Your task to perform on an android device: Open settings on Google Maps Image 0: 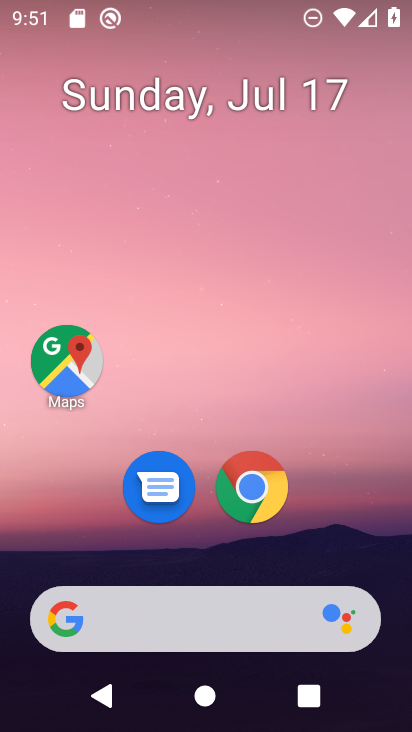
Step 0: press home button
Your task to perform on an android device: Open settings on Google Maps Image 1: 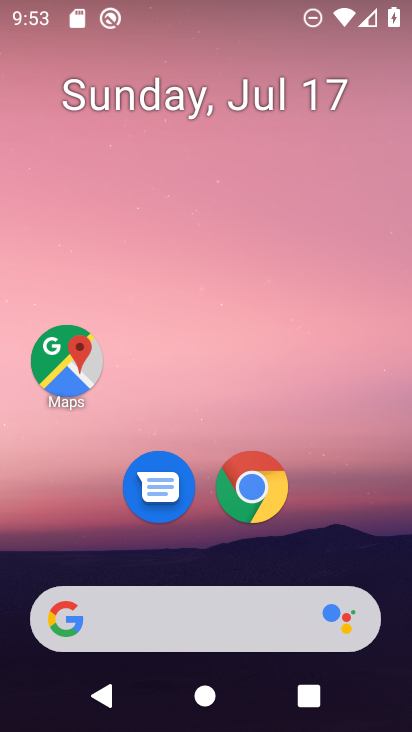
Step 1: drag from (328, 519) to (253, 88)
Your task to perform on an android device: Open settings on Google Maps Image 2: 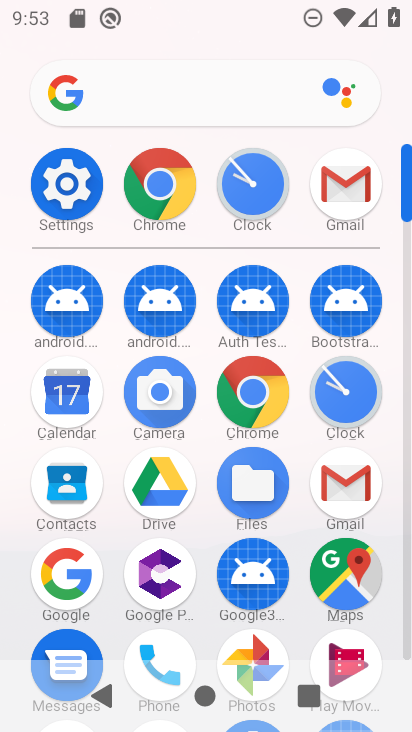
Step 2: click (342, 577)
Your task to perform on an android device: Open settings on Google Maps Image 3: 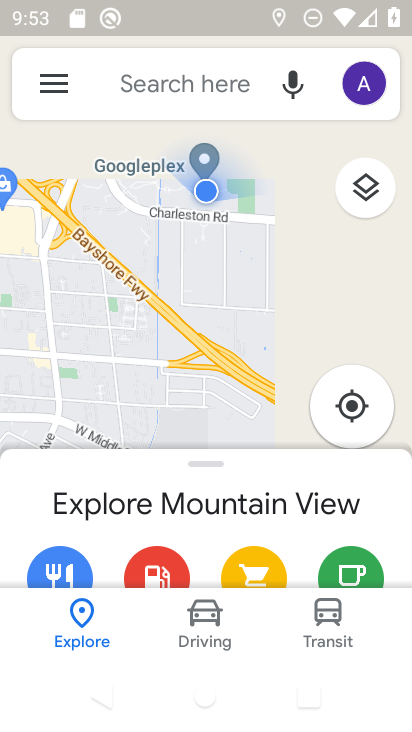
Step 3: click (47, 69)
Your task to perform on an android device: Open settings on Google Maps Image 4: 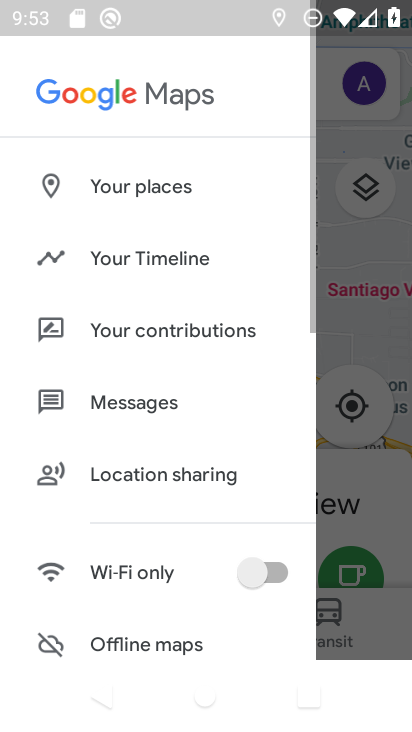
Step 4: drag from (242, 565) to (203, 96)
Your task to perform on an android device: Open settings on Google Maps Image 5: 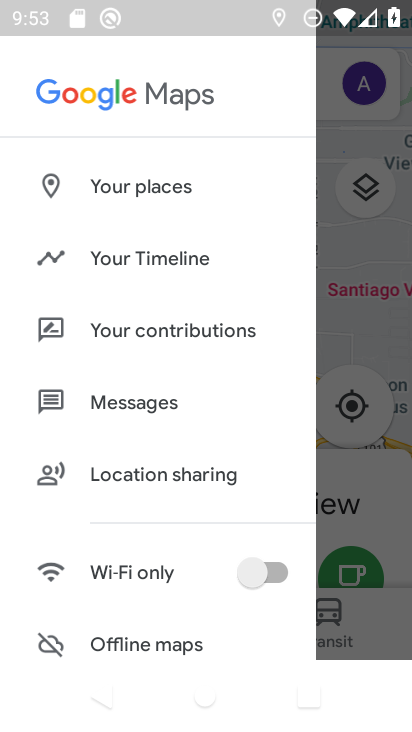
Step 5: drag from (176, 525) to (231, 86)
Your task to perform on an android device: Open settings on Google Maps Image 6: 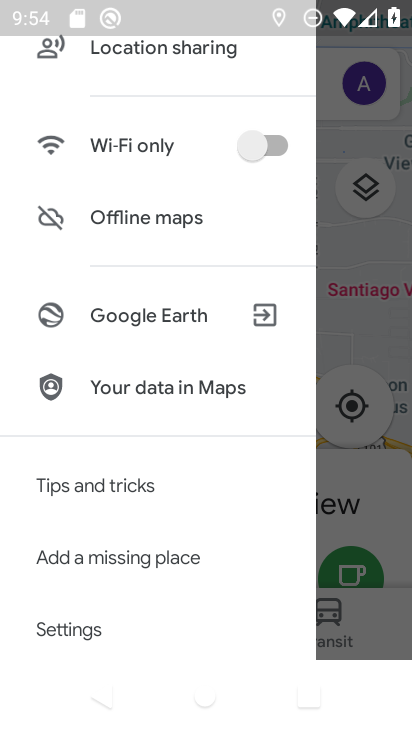
Step 6: click (61, 629)
Your task to perform on an android device: Open settings on Google Maps Image 7: 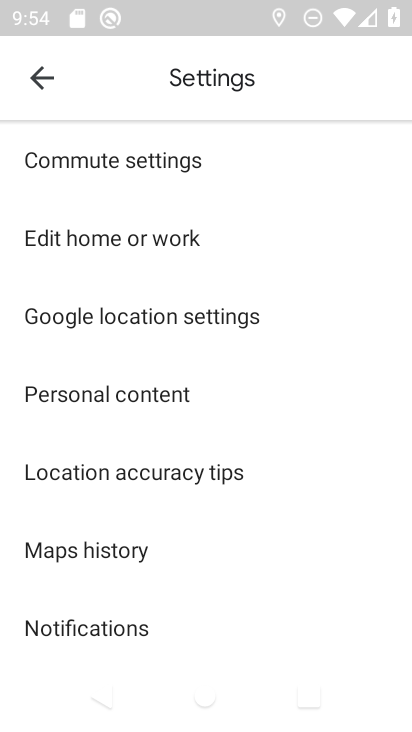
Step 7: task complete